Your task to perform on an android device: find photos in the google photos app Image 0: 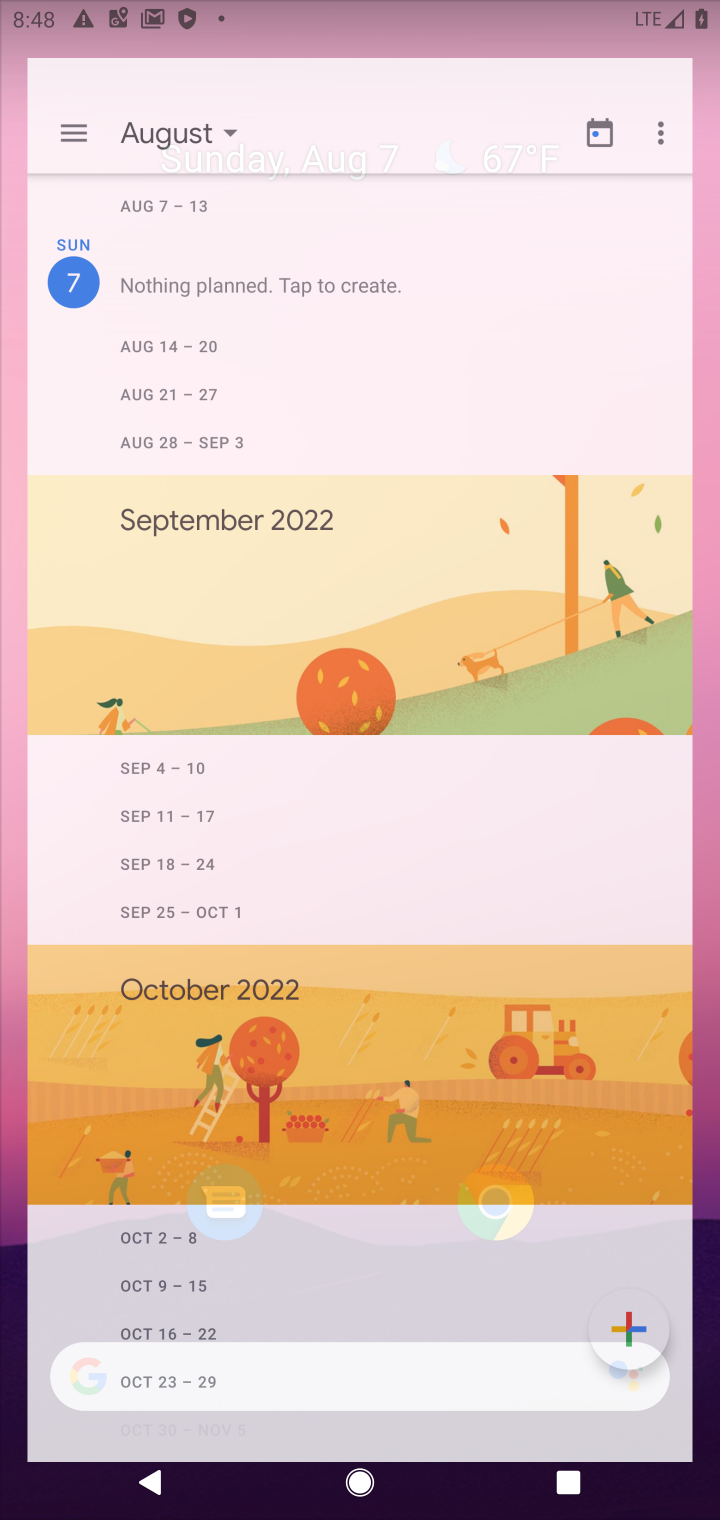
Step 0: press home button
Your task to perform on an android device: find photos in the google photos app Image 1: 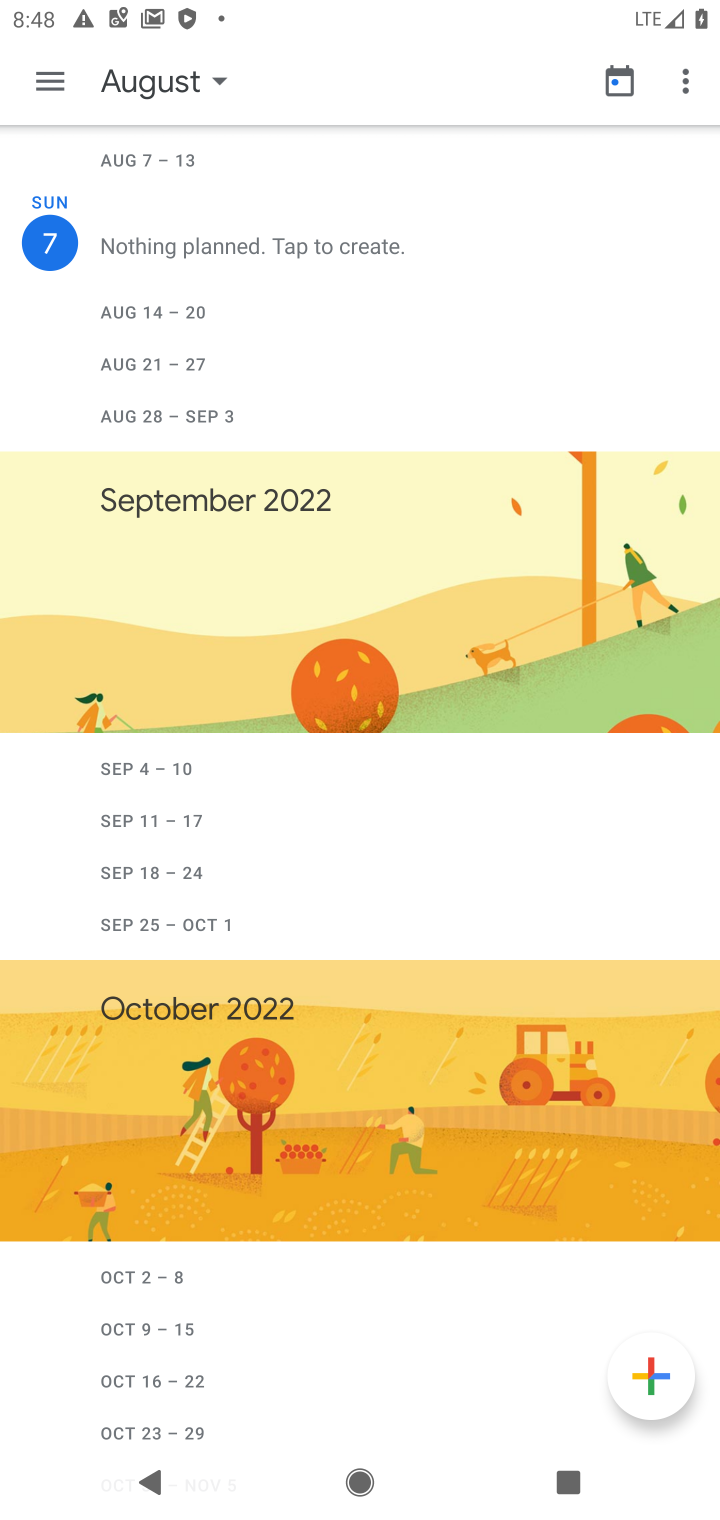
Step 1: drag from (351, 1192) to (415, 257)
Your task to perform on an android device: find photos in the google photos app Image 2: 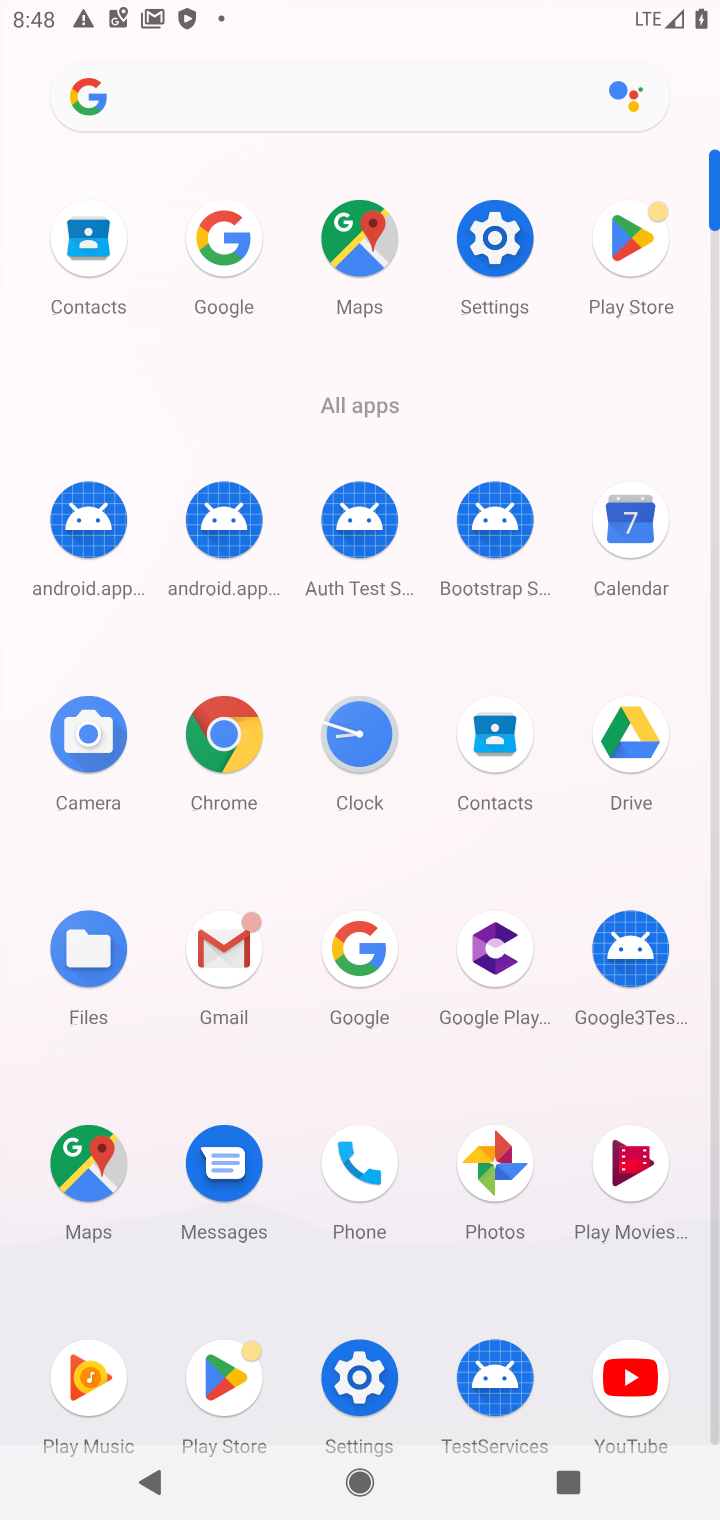
Step 2: click (505, 1174)
Your task to perform on an android device: find photos in the google photos app Image 3: 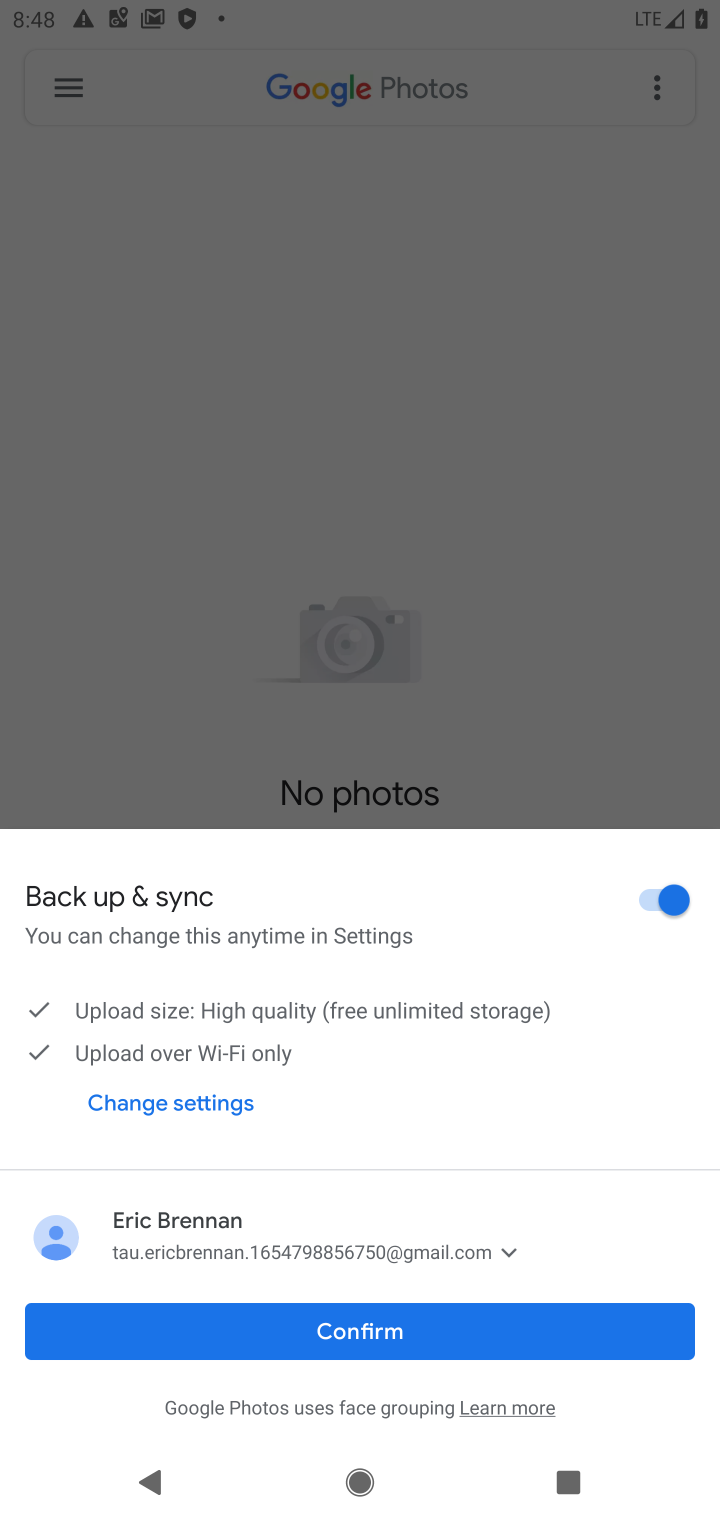
Step 3: click (467, 1349)
Your task to perform on an android device: find photos in the google photos app Image 4: 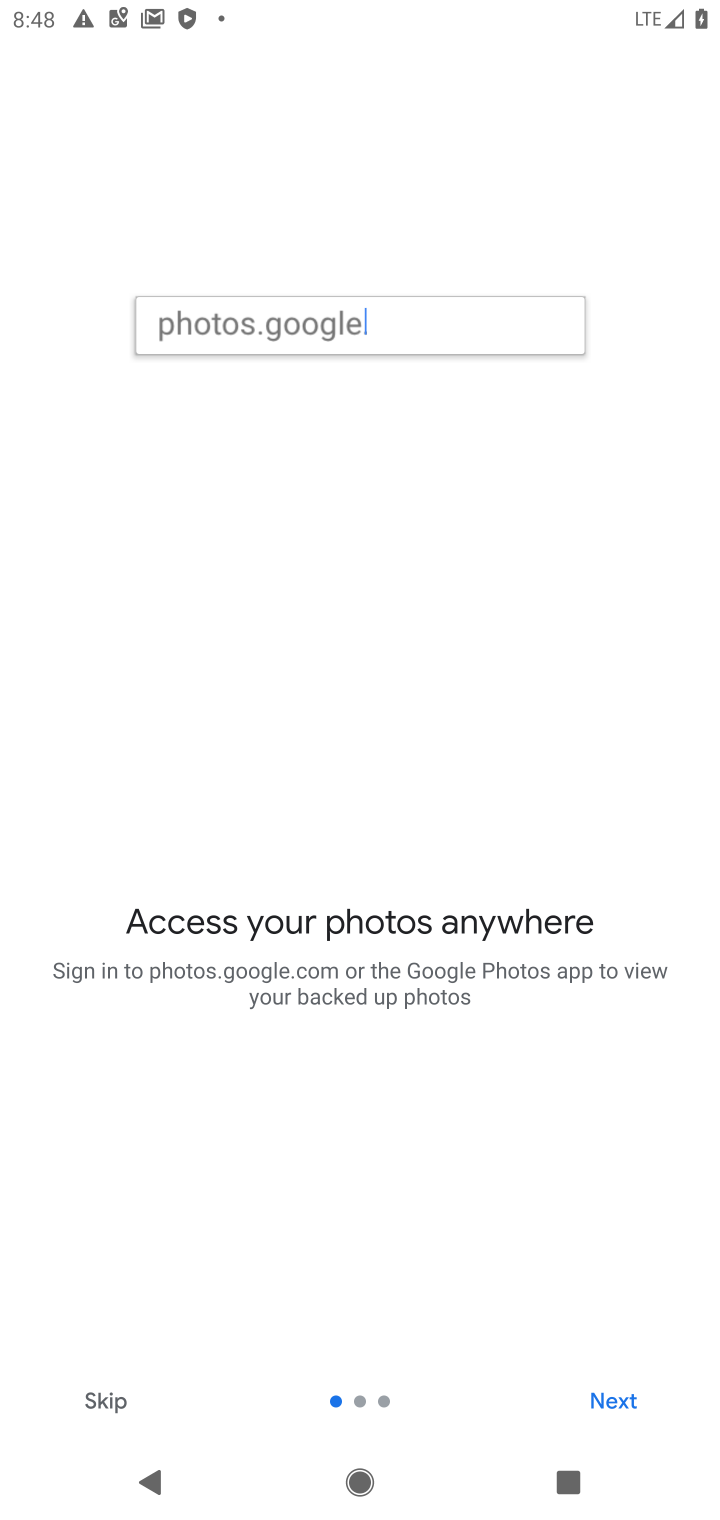
Step 4: click (116, 1403)
Your task to perform on an android device: find photos in the google photos app Image 5: 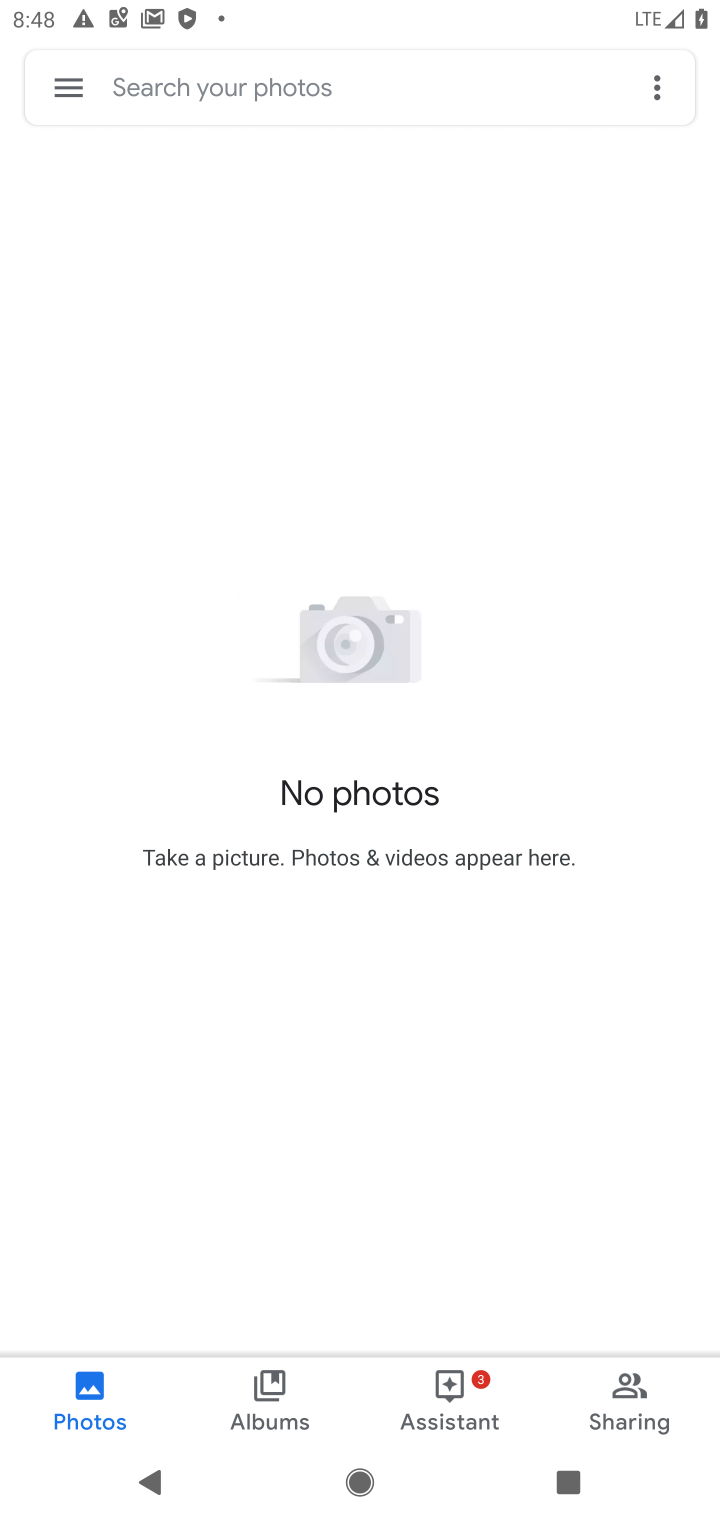
Step 5: task complete